Your task to perform on an android device: turn notification dots on Image 0: 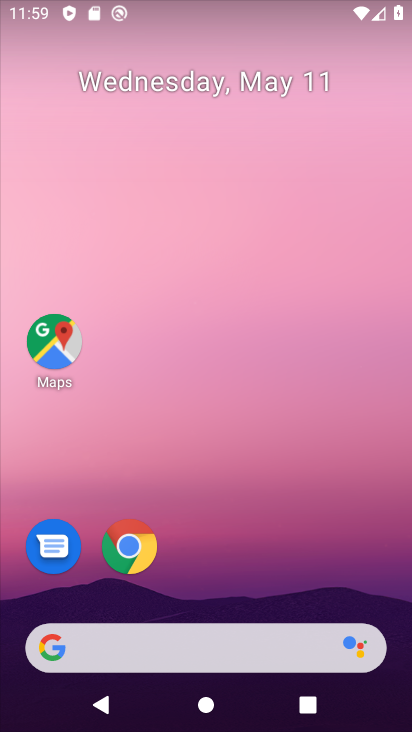
Step 0: drag from (205, 614) to (291, 49)
Your task to perform on an android device: turn notification dots on Image 1: 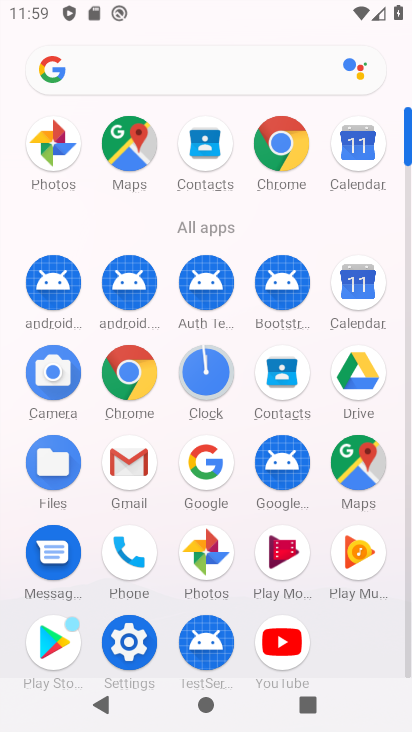
Step 1: click (128, 651)
Your task to perform on an android device: turn notification dots on Image 2: 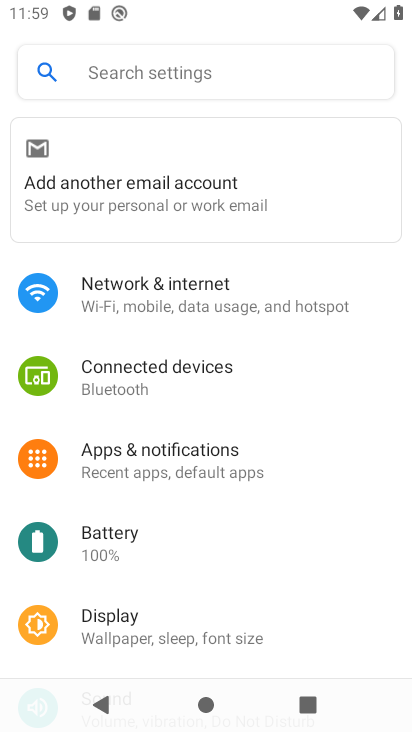
Step 2: click (224, 472)
Your task to perform on an android device: turn notification dots on Image 3: 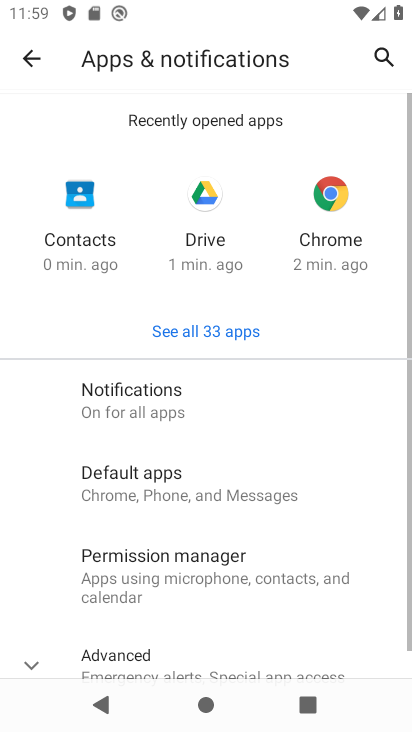
Step 3: click (223, 416)
Your task to perform on an android device: turn notification dots on Image 4: 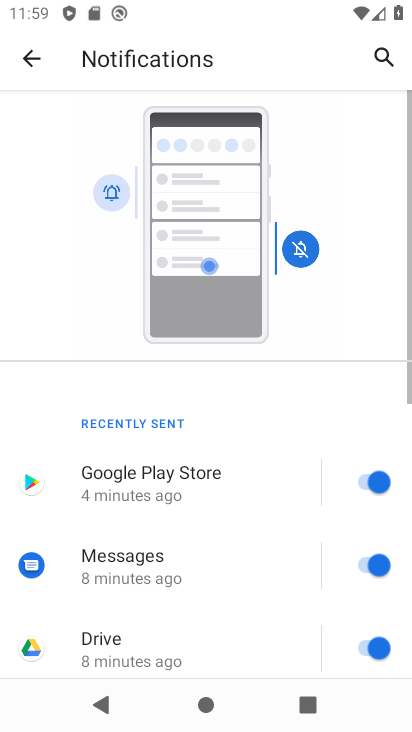
Step 4: drag from (164, 611) to (248, 137)
Your task to perform on an android device: turn notification dots on Image 5: 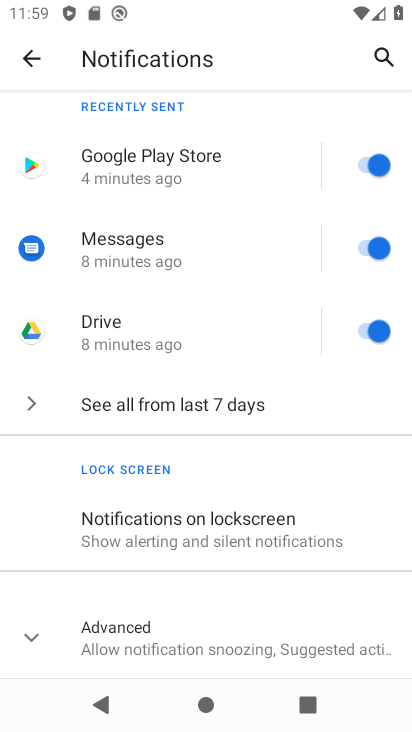
Step 5: click (217, 636)
Your task to perform on an android device: turn notification dots on Image 6: 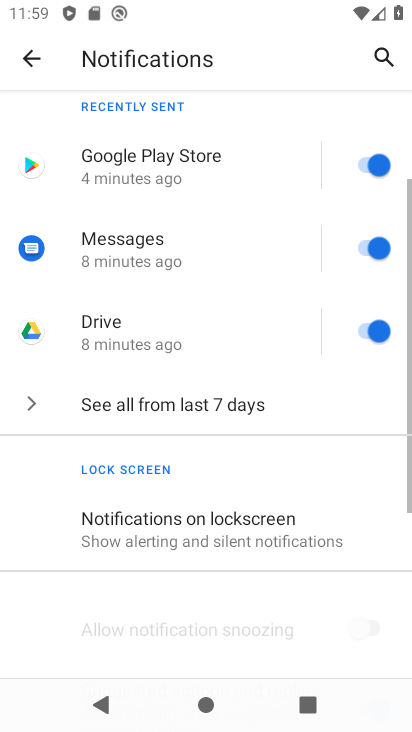
Step 6: task complete